Your task to perform on an android device: clear all cookies in the chrome app Image 0: 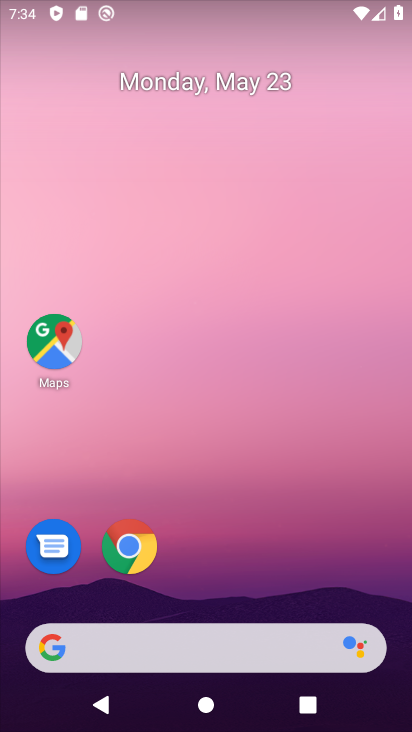
Step 0: drag from (398, 597) to (382, 167)
Your task to perform on an android device: clear all cookies in the chrome app Image 1: 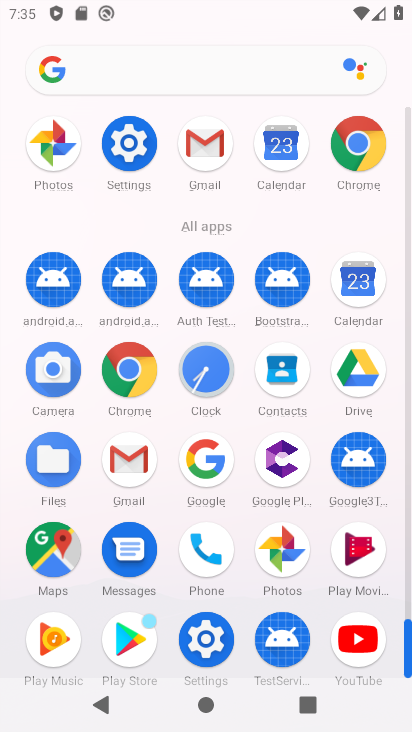
Step 1: click (135, 379)
Your task to perform on an android device: clear all cookies in the chrome app Image 2: 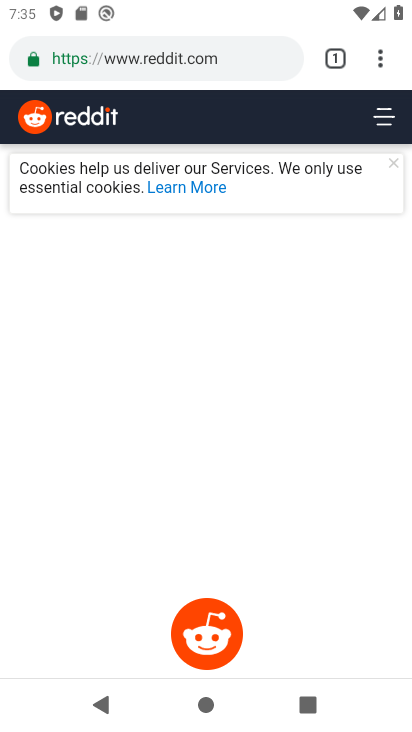
Step 2: click (384, 65)
Your task to perform on an android device: clear all cookies in the chrome app Image 3: 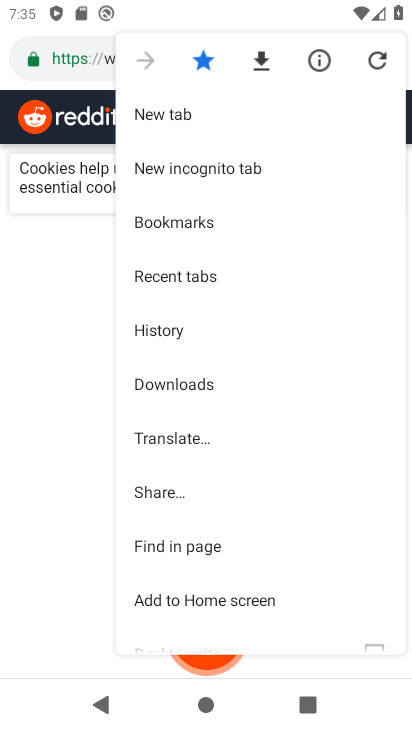
Step 3: drag from (373, 544) to (376, 456)
Your task to perform on an android device: clear all cookies in the chrome app Image 4: 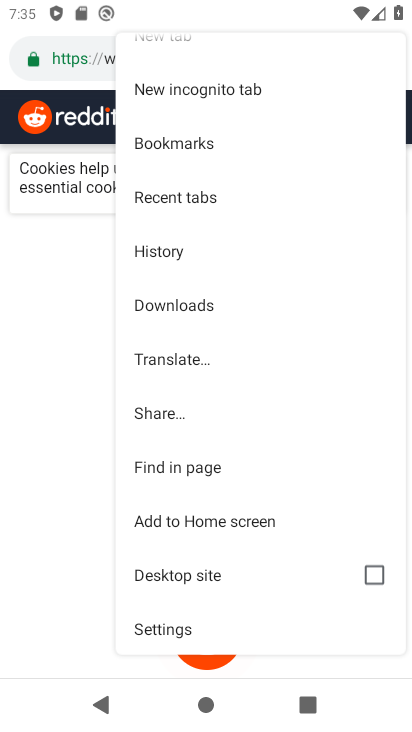
Step 4: drag from (336, 548) to (338, 415)
Your task to perform on an android device: clear all cookies in the chrome app Image 5: 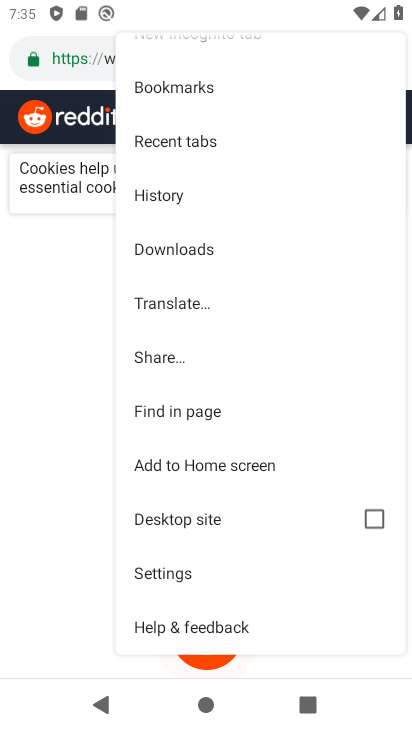
Step 5: click (185, 579)
Your task to perform on an android device: clear all cookies in the chrome app Image 6: 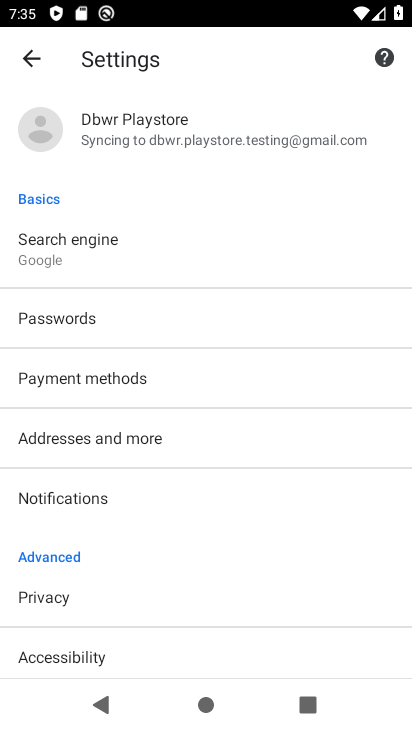
Step 6: drag from (281, 597) to (294, 515)
Your task to perform on an android device: clear all cookies in the chrome app Image 7: 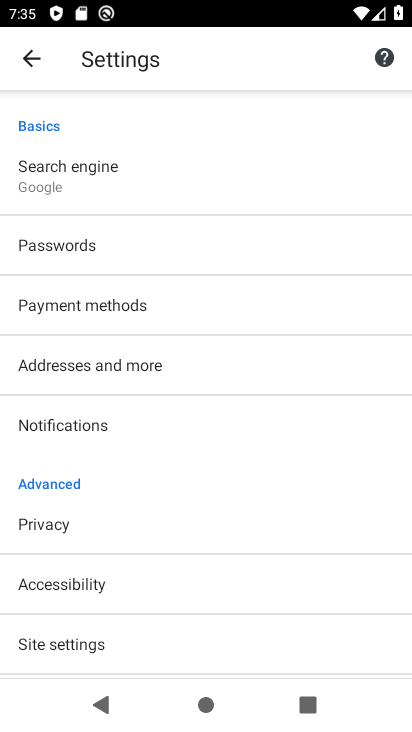
Step 7: drag from (312, 575) to (314, 498)
Your task to perform on an android device: clear all cookies in the chrome app Image 8: 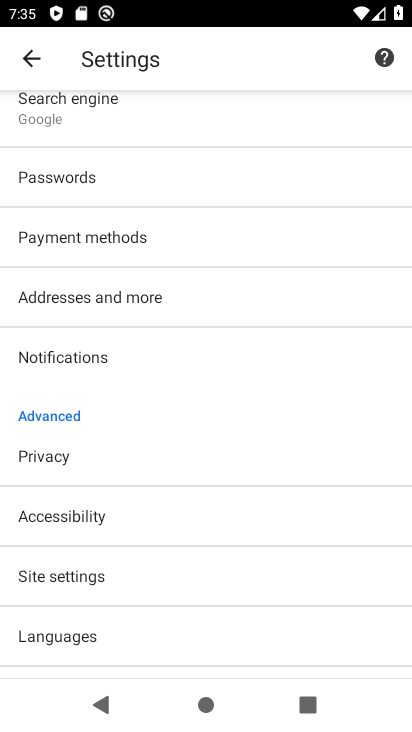
Step 8: drag from (350, 590) to (356, 480)
Your task to perform on an android device: clear all cookies in the chrome app Image 9: 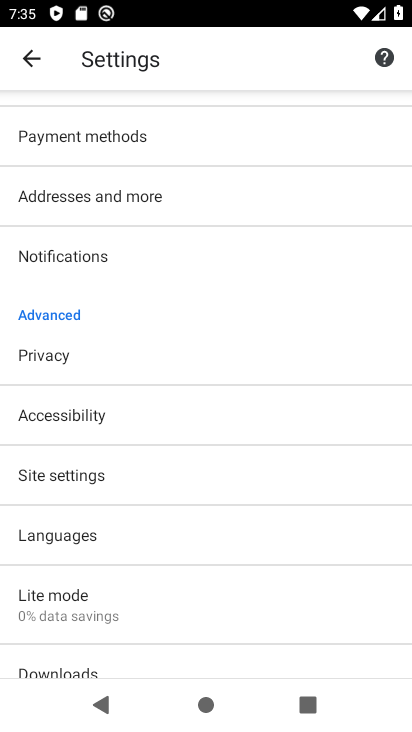
Step 9: drag from (362, 615) to (358, 463)
Your task to perform on an android device: clear all cookies in the chrome app Image 10: 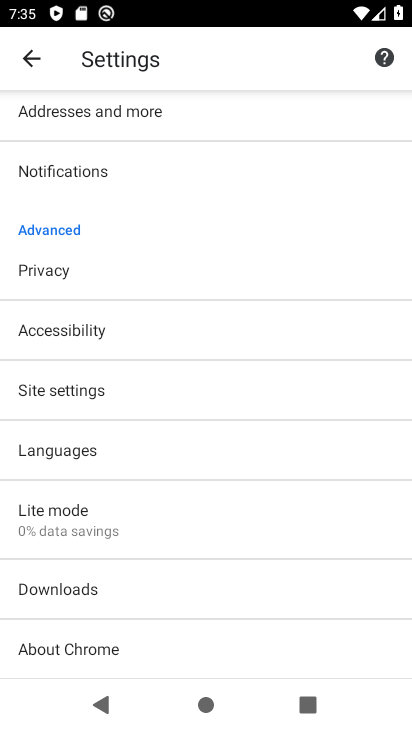
Step 10: click (184, 280)
Your task to perform on an android device: clear all cookies in the chrome app Image 11: 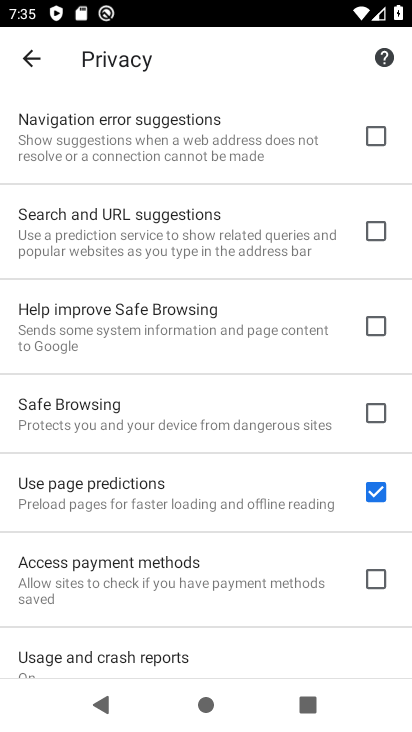
Step 11: drag from (291, 528) to (301, 460)
Your task to perform on an android device: clear all cookies in the chrome app Image 12: 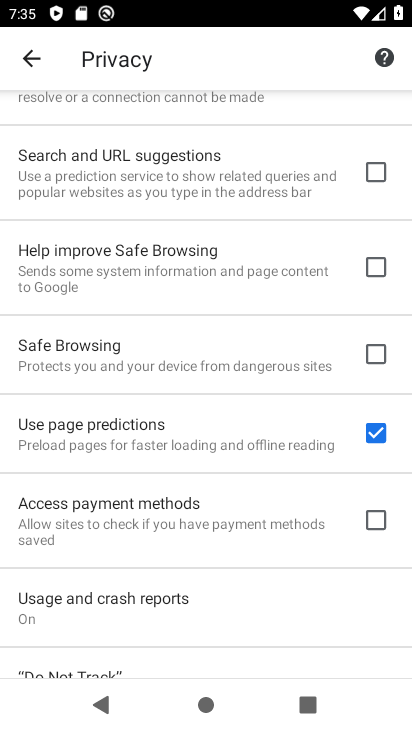
Step 12: drag from (335, 617) to (336, 529)
Your task to perform on an android device: clear all cookies in the chrome app Image 13: 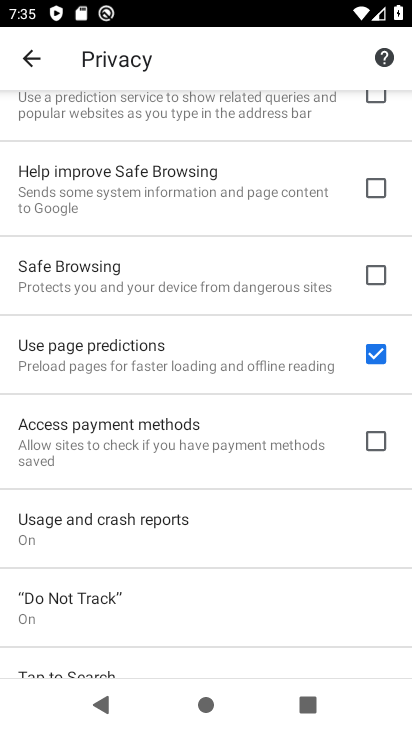
Step 13: drag from (326, 618) to (331, 563)
Your task to perform on an android device: clear all cookies in the chrome app Image 14: 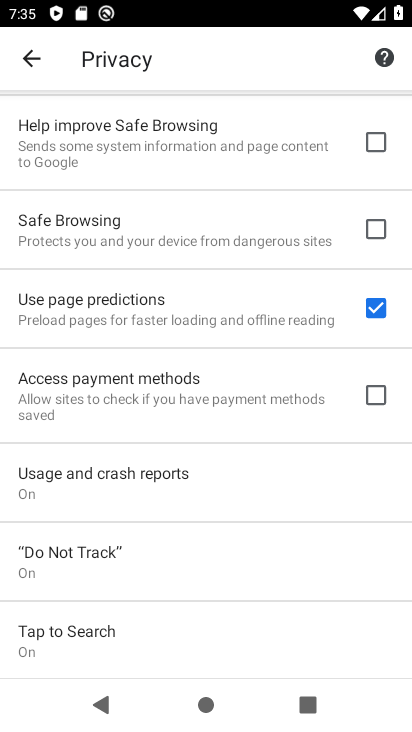
Step 14: drag from (333, 630) to (334, 555)
Your task to perform on an android device: clear all cookies in the chrome app Image 15: 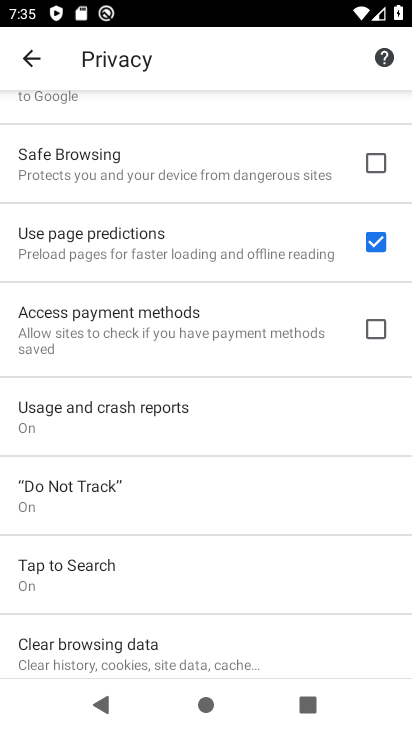
Step 15: drag from (338, 638) to (338, 541)
Your task to perform on an android device: clear all cookies in the chrome app Image 16: 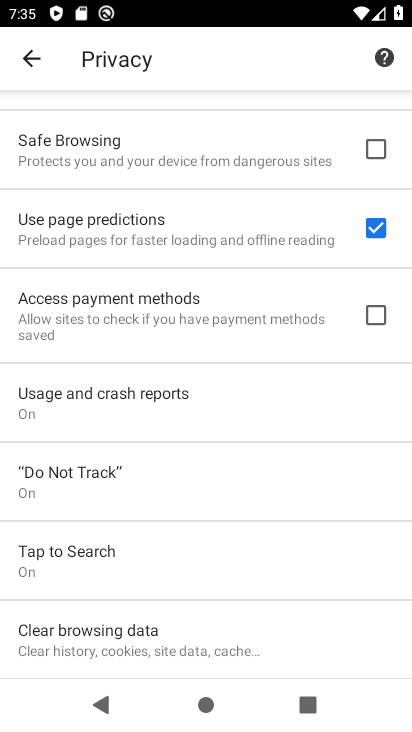
Step 16: click (312, 636)
Your task to perform on an android device: clear all cookies in the chrome app Image 17: 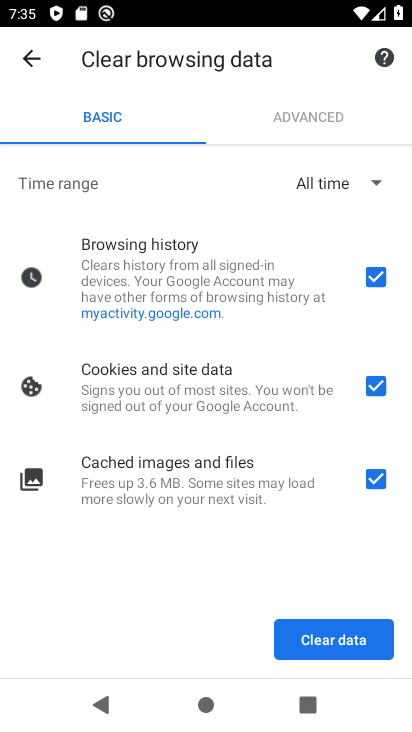
Step 17: click (312, 636)
Your task to perform on an android device: clear all cookies in the chrome app Image 18: 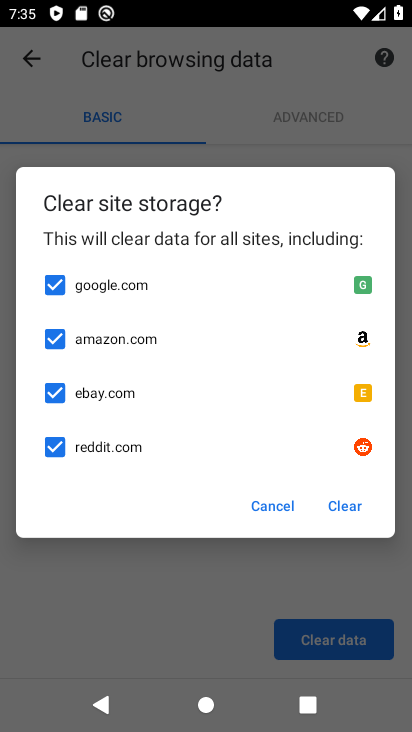
Step 18: click (341, 521)
Your task to perform on an android device: clear all cookies in the chrome app Image 19: 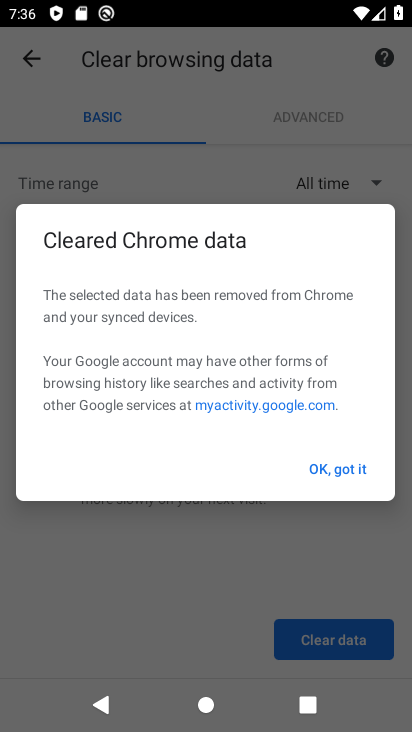
Step 19: click (323, 474)
Your task to perform on an android device: clear all cookies in the chrome app Image 20: 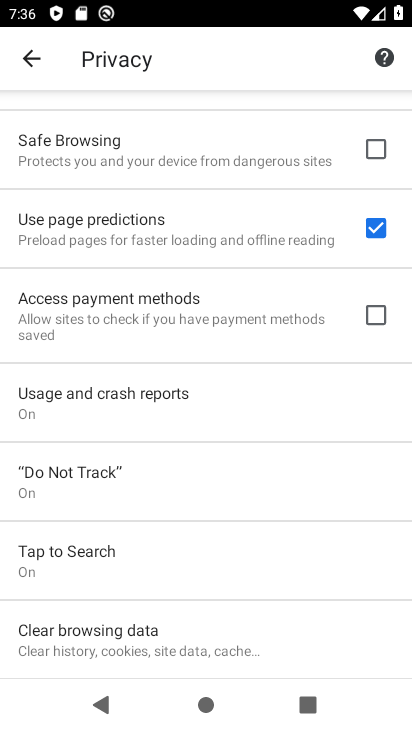
Step 20: task complete